Your task to perform on an android device: Open CNN.com Image 0: 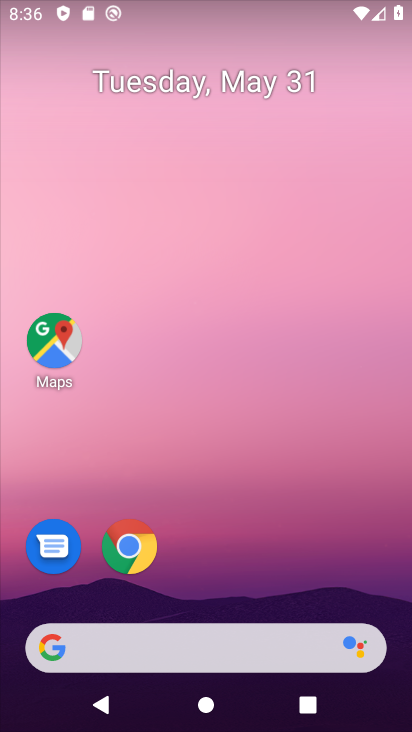
Step 0: click (128, 537)
Your task to perform on an android device: Open CNN.com Image 1: 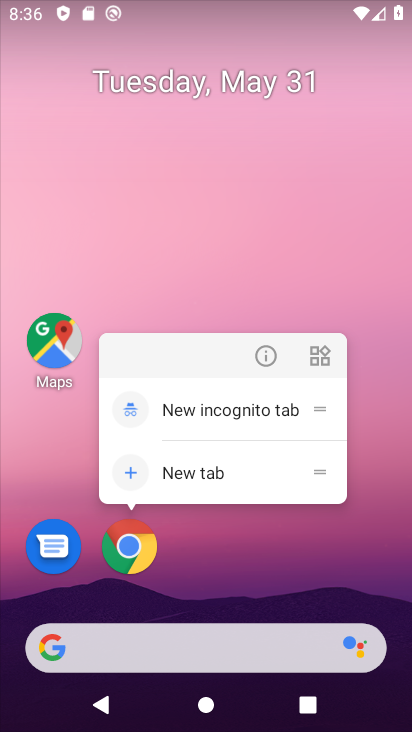
Step 1: click (136, 548)
Your task to perform on an android device: Open CNN.com Image 2: 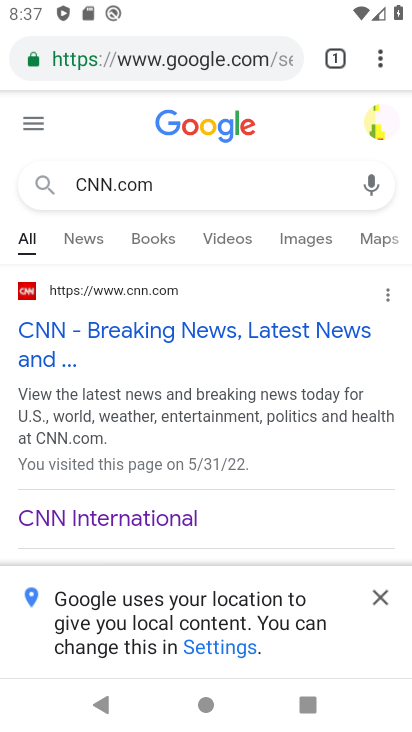
Step 2: task complete